Your task to perform on an android device: toggle translation in the chrome app Image 0: 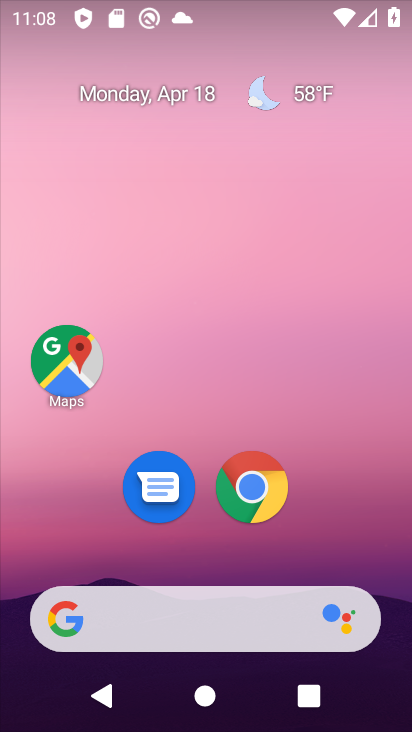
Step 0: click (251, 492)
Your task to perform on an android device: toggle translation in the chrome app Image 1: 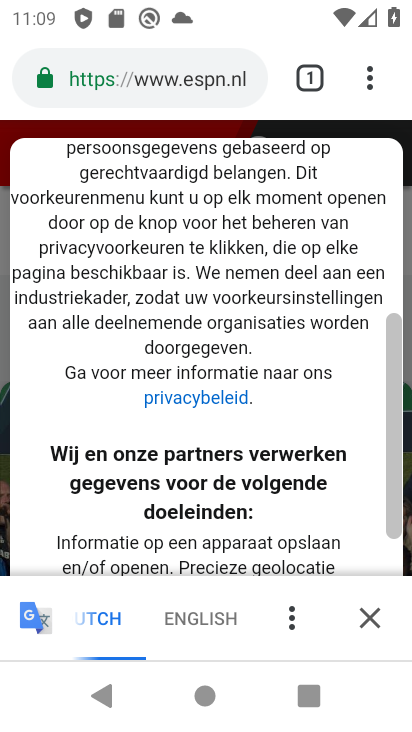
Step 1: click (380, 88)
Your task to perform on an android device: toggle translation in the chrome app Image 2: 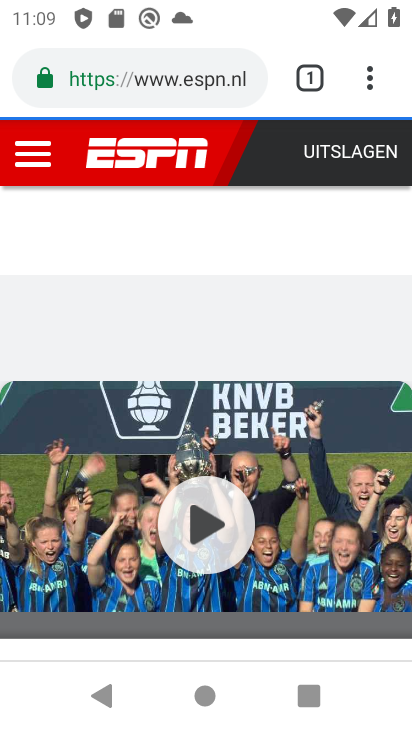
Step 2: click (366, 92)
Your task to perform on an android device: toggle translation in the chrome app Image 3: 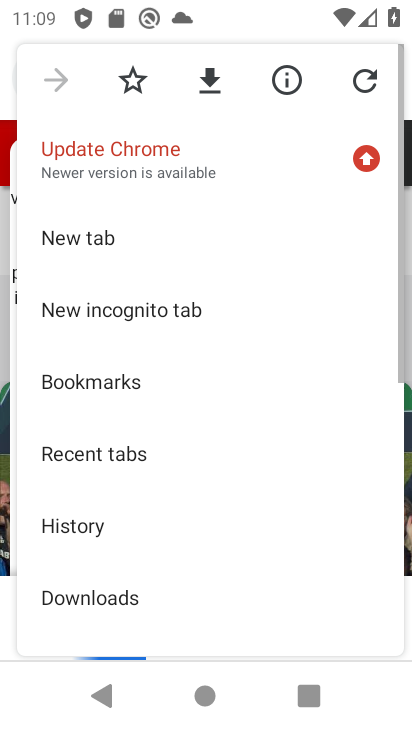
Step 3: drag from (289, 570) to (257, 381)
Your task to perform on an android device: toggle translation in the chrome app Image 4: 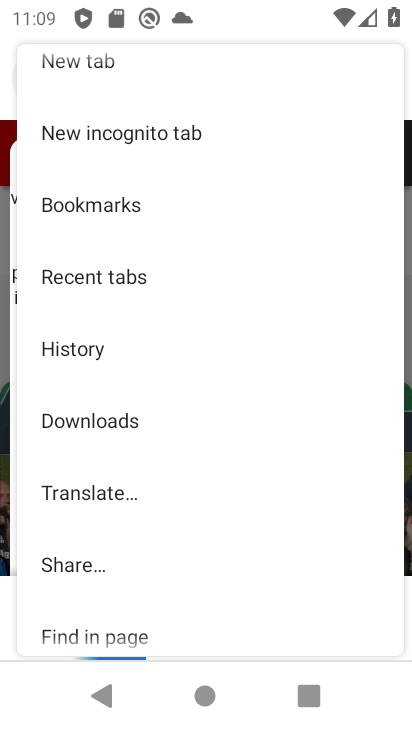
Step 4: drag from (236, 556) to (228, 367)
Your task to perform on an android device: toggle translation in the chrome app Image 5: 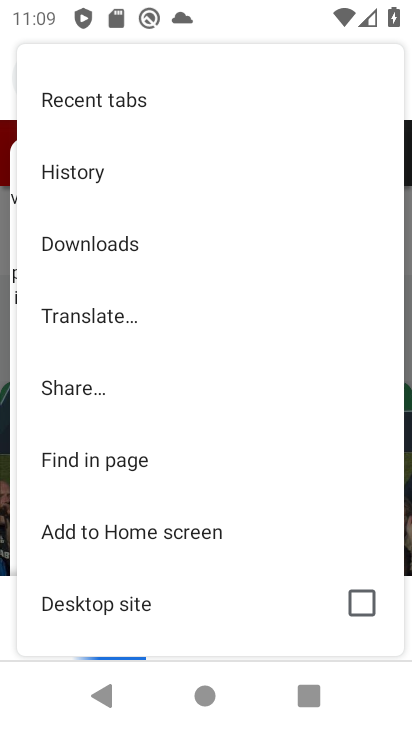
Step 5: drag from (230, 560) to (234, 375)
Your task to perform on an android device: toggle translation in the chrome app Image 6: 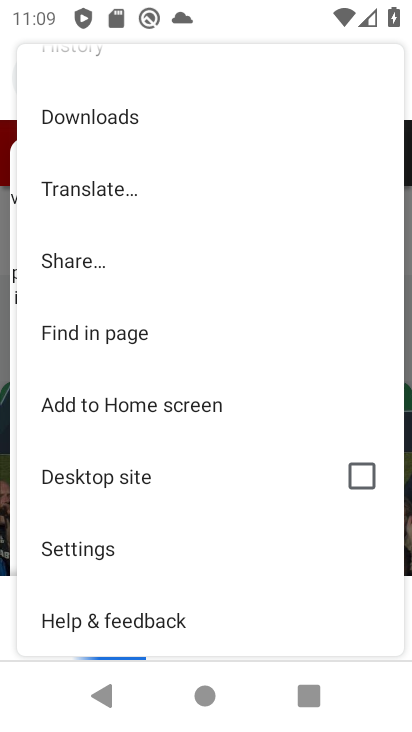
Step 6: click (116, 553)
Your task to perform on an android device: toggle translation in the chrome app Image 7: 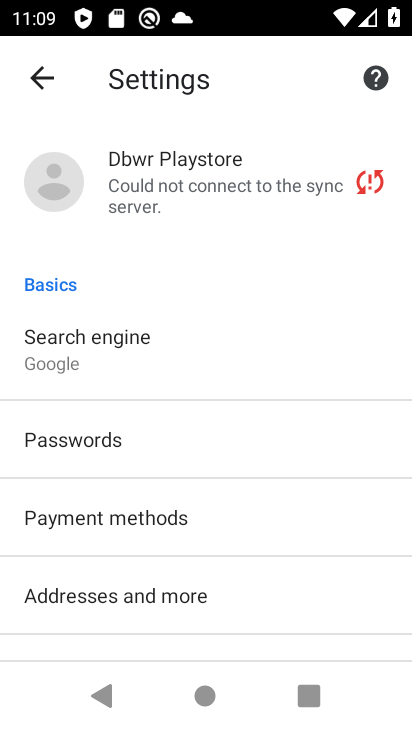
Step 7: drag from (305, 611) to (293, 323)
Your task to perform on an android device: toggle translation in the chrome app Image 8: 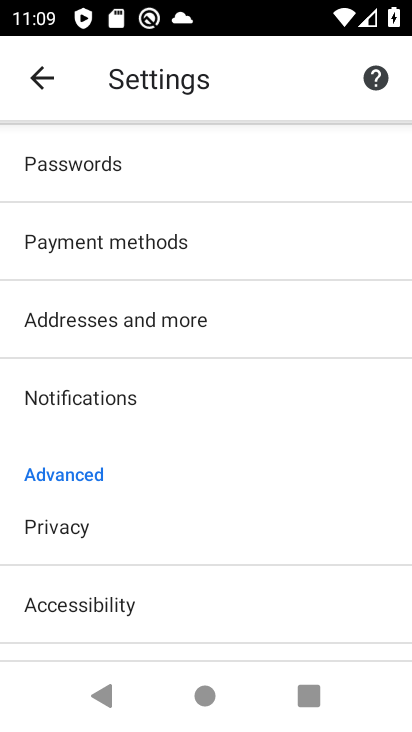
Step 8: drag from (283, 517) to (276, 265)
Your task to perform on an android device: toggle translation in the chrome app Image 9: 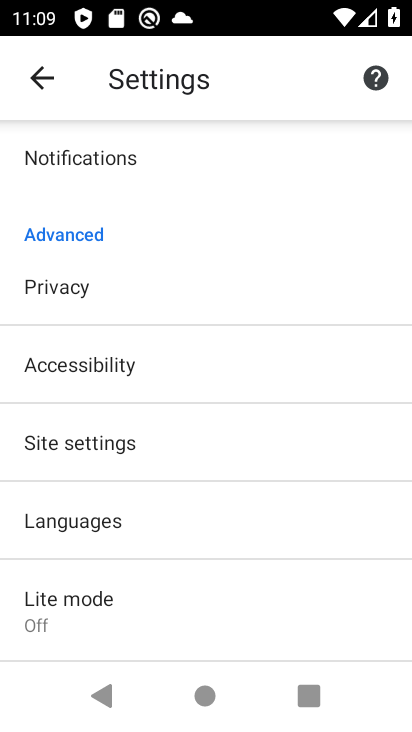
Step 9: click (252, 507)
Your task to perform on an android device: toggle translation in the chrome app Image 10: 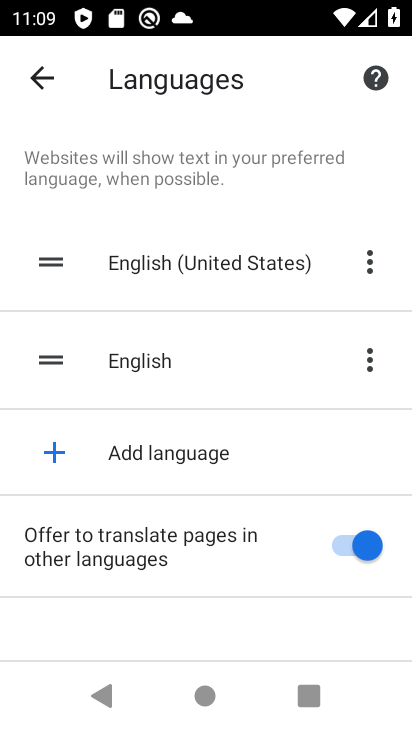
Step 10: click (338, 547)
Your task to perform on an android device: toggle translation in the chrome app Image 11: 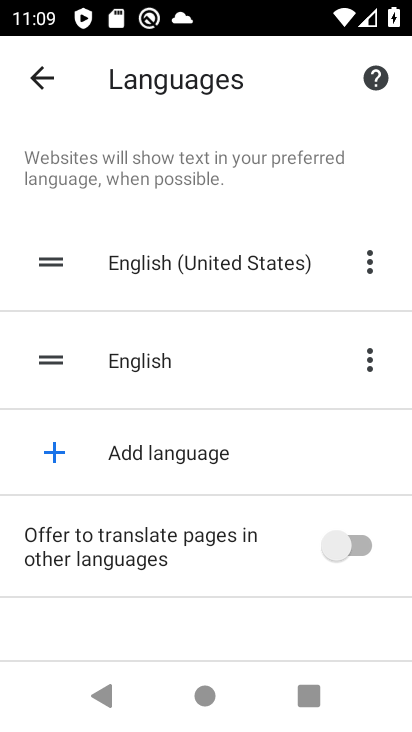
Step 11: task complete